Your task to perform on an android device: Search for vegetarian restaurants on Maps Image 0: 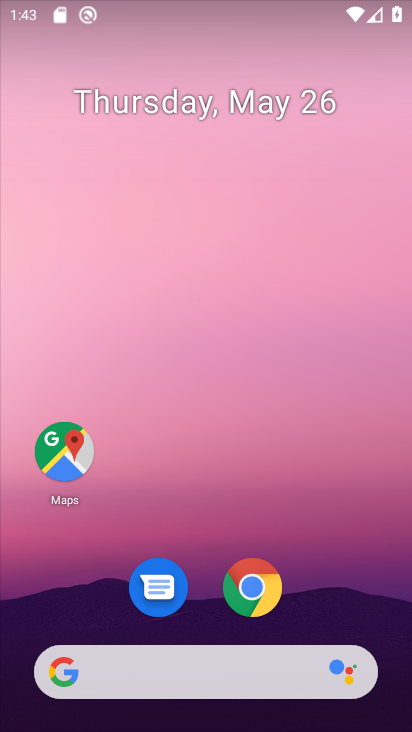
Step 0: drag from (348, 513) to (316, 118)
Your task to perform on an android device: Search for vegetarian restaurants on Maps Image 1: 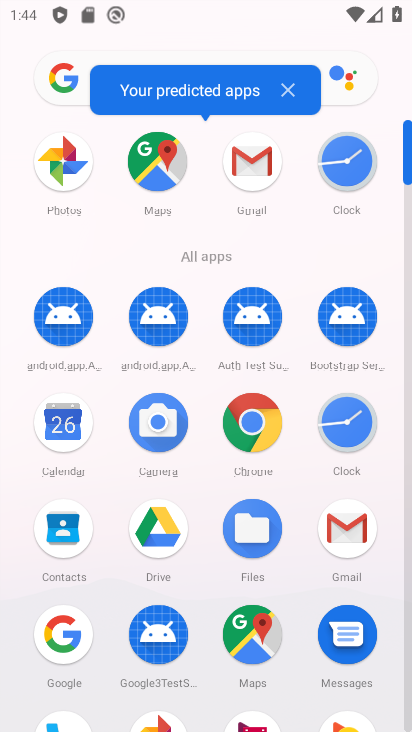
Step 1: click (160, 165)
Your task to perform on an android device: Search for vegetarian restaurants on Maps Image 2: 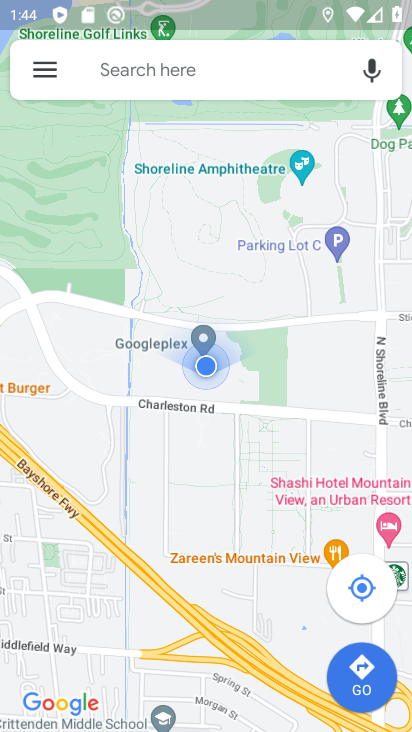
Step 2: click (133, 59)
Your task to perform on an android device: Search for vegetarian restaurants on Maps Image 3: 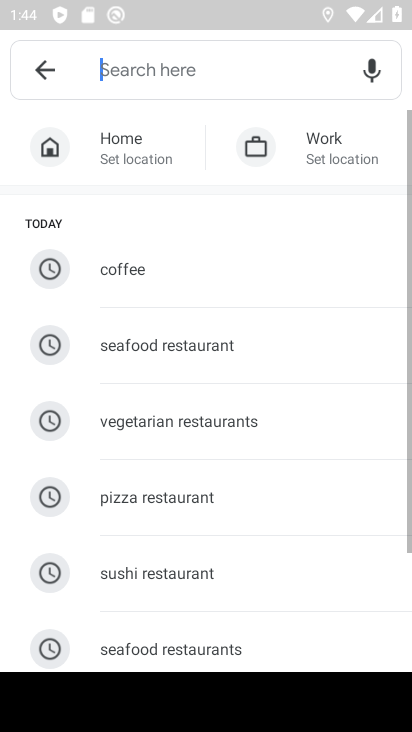
Step 3: click (210, 422)
Your task to perform on an android device: Search for vegetarian restaurants on Maps Image 4: 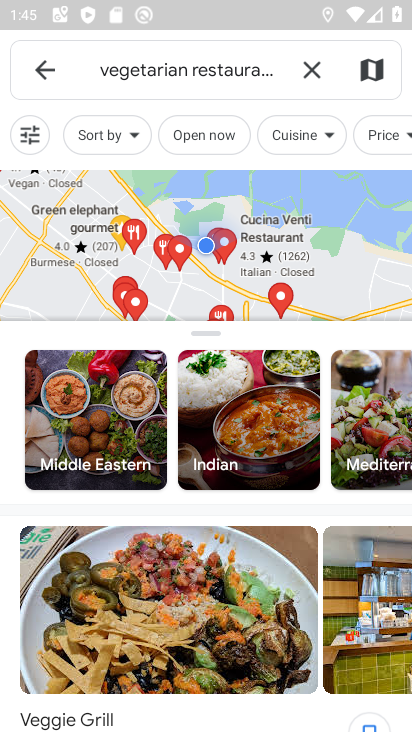
Step 4: task complete